Your task to perform on an android device: see tabs open on other devices in the chrome app Image 0: 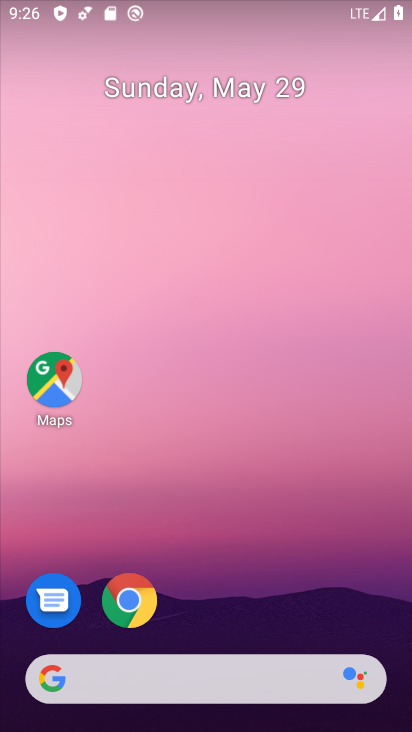
Step 0: click (130, 587)
Your task to perform on an android device: see tabs open on other devices in the chrome app Image 1: 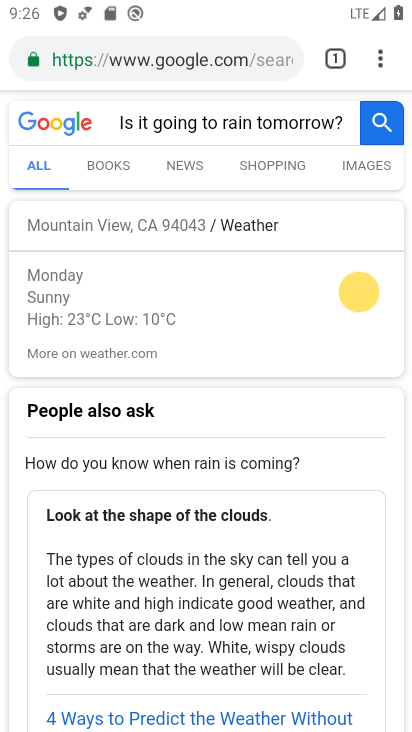
Step 1: drag from (384, 55) to (190, 255)
Your task to perform on an android device: see tabs open on other devices in the chrome app Image 2: 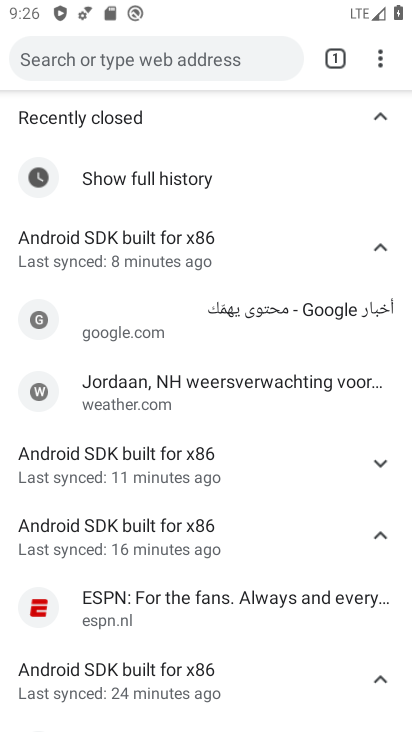
Step 2: click (370, 465)
Your task to perform on an android device: see tabs open on other devices in the chrome app Image 3: 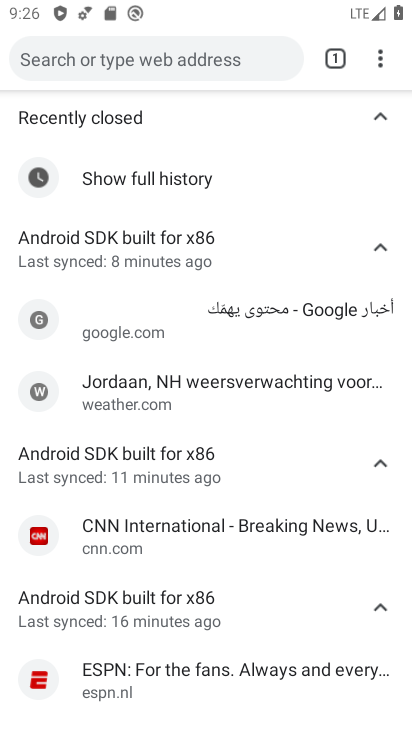
Step 3: task complete